Your task to perform on an android device: Go to Yahoo.com Image 0: 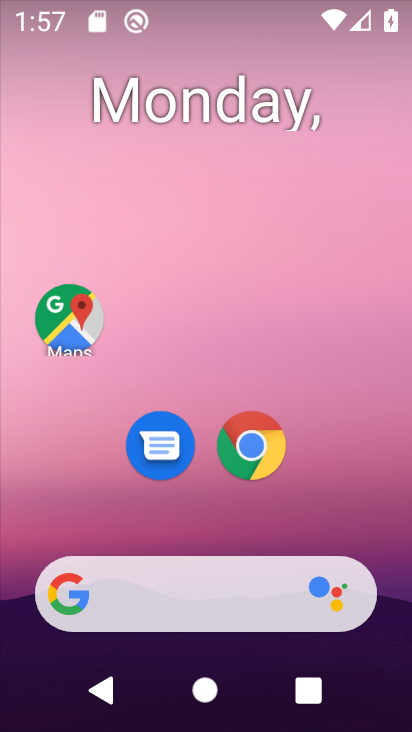
Step 0: drag from (375, 572) to (268, 33)
Your task to perform on an android device: Go to Yahoo.com Image 1: 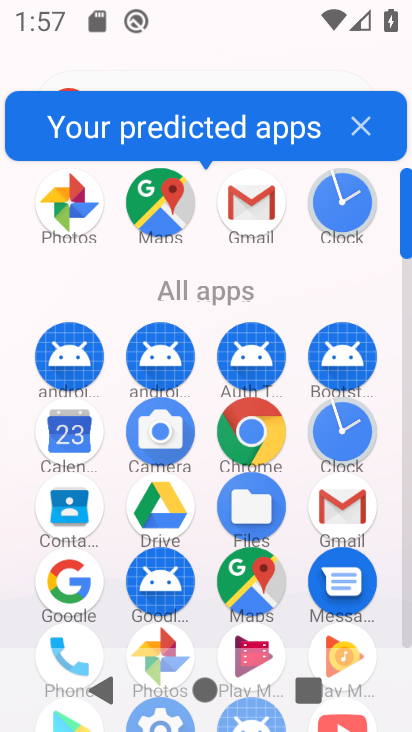
Step 1: drag from (9, 539) to (0, 205)
Your task to perform on an android device: Go to Yahoo.com Image 2: 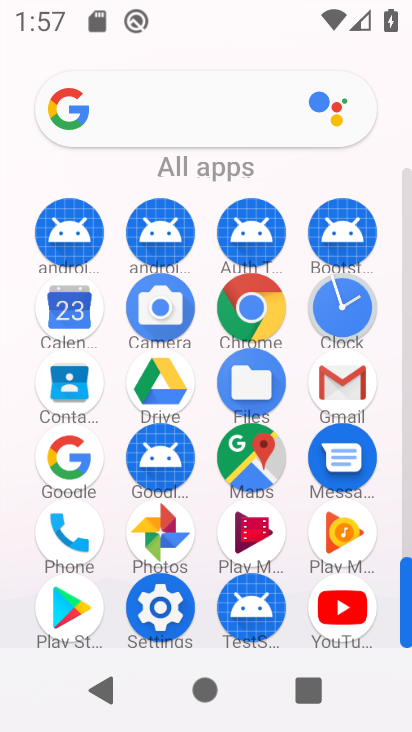
Step 2: click (247, 302)
Your task to perform on an android device: Go to Yahoo.com Image 3: 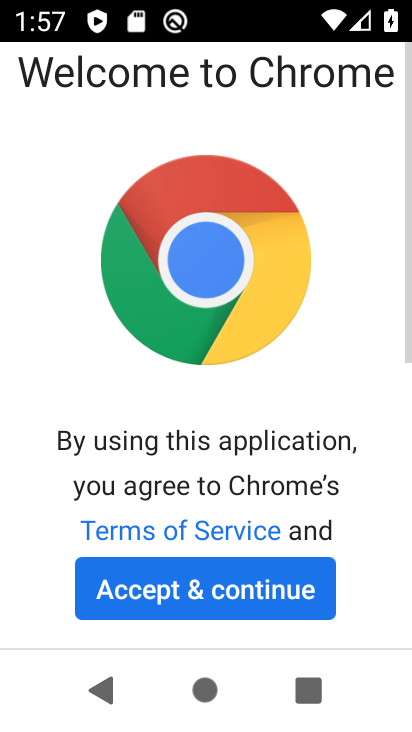
Step 3: click (246, 602)
Your task to perform on an android device: Go to Yahoo.com Image 4: 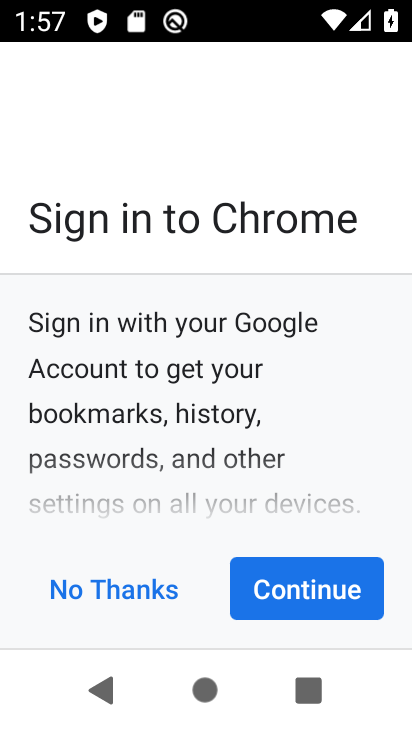
Step 4: click (278, 578)
Your task to perform on an android device: Go to Yahoo.com Image 5: 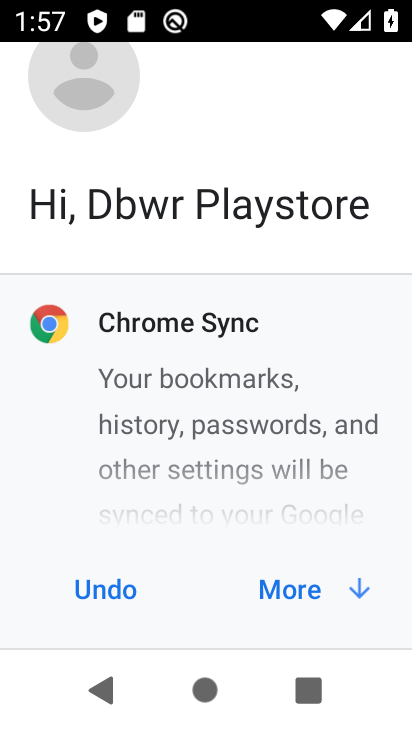
Step 5: click (277, 581)
Your task to perform on an android device: Go to Yahoo.com Image 6: 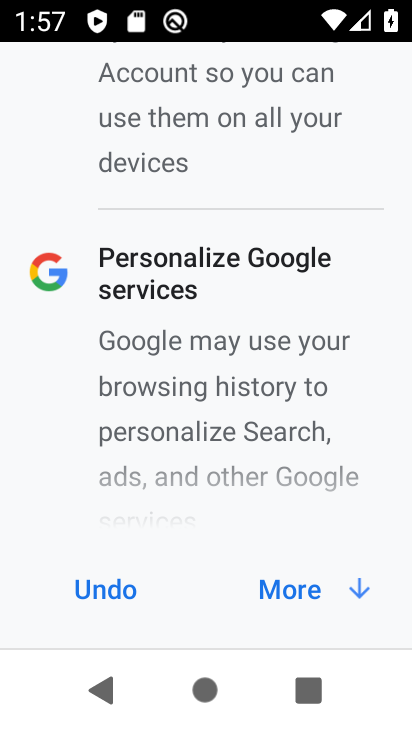
Step 6: click (301, 592)
Your task to perform on an android device: Go to Yahoo.com Image 7: 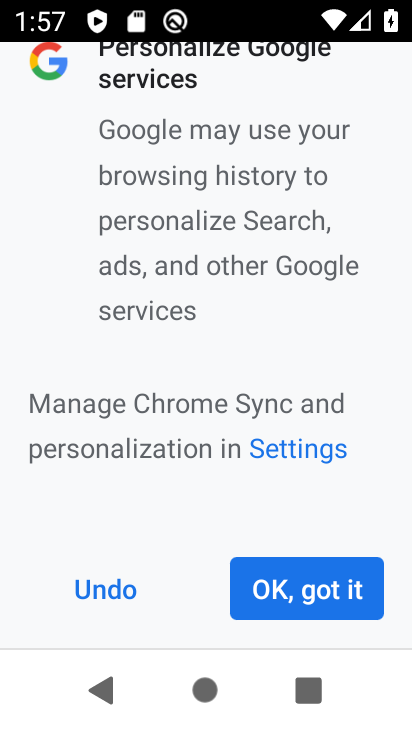
Step 7: click (300, 586)
Your task to perform on an android device: Go to Yahoo.com Image 8: 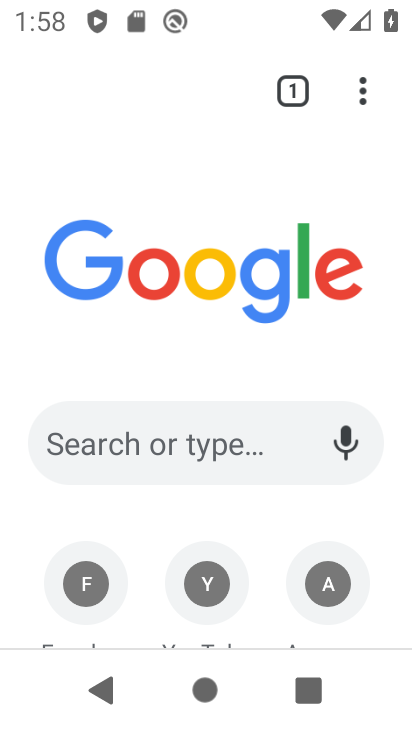
Step 8: click (188, 438)
Your task to perform on an android device: Go to Yahoo.com Image 9: 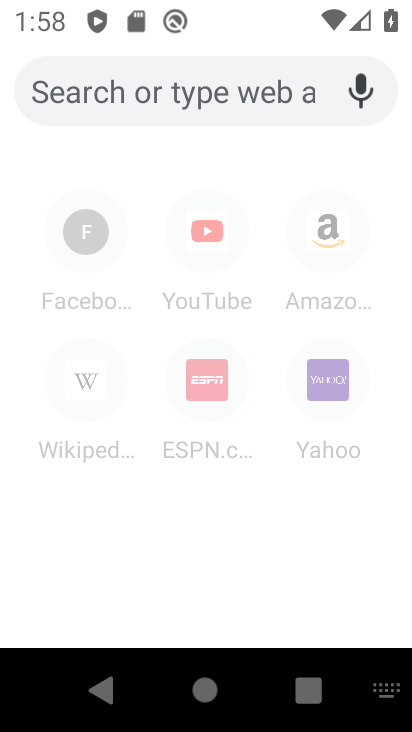
Step 9: click (323, 377)
Your task to perform on an android device: Go to Yahoo.com Image 10: 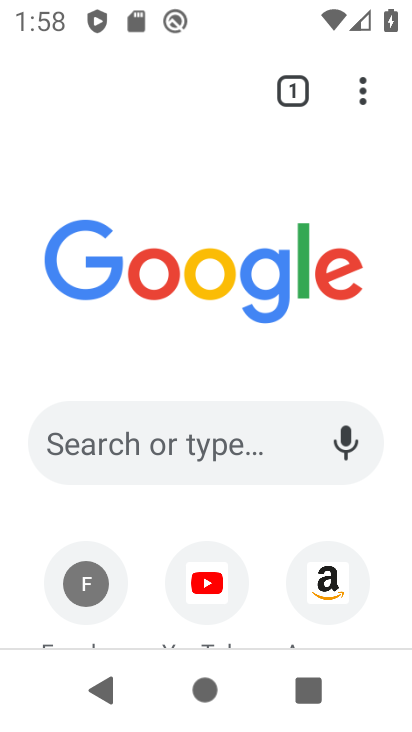
Step 10: drag from (30, 552) to (28, 199)
Your task to perform on an android device: Go to Yahoo.com Image 11: 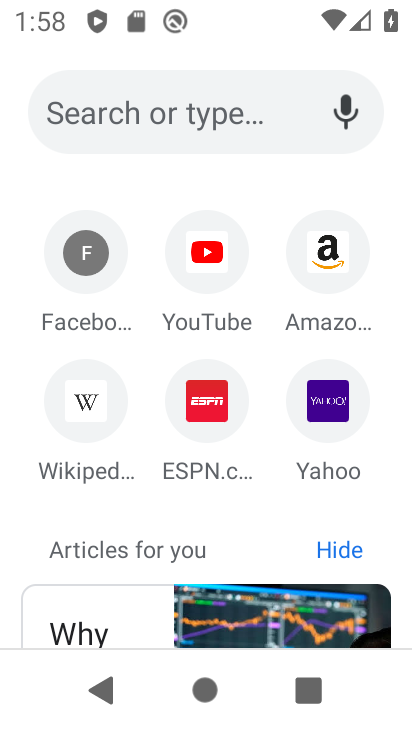
Step 11: click (324, 405)
Your task to perform on an android device: Go to Yahoo.com Image 12: 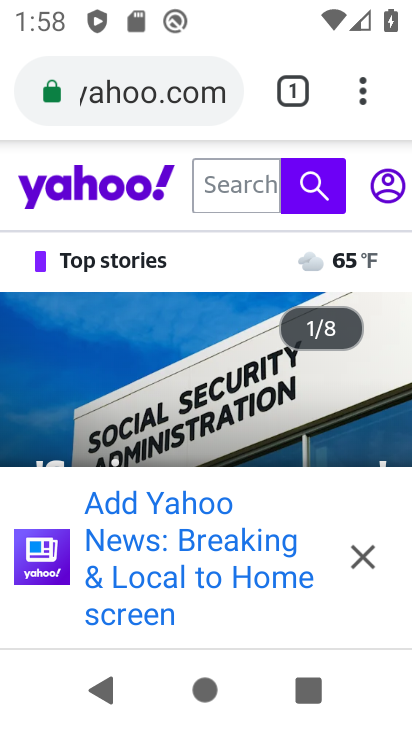
Step 12: click (360, 553)
Your task to perform on an android device: Go to Yahoo.com Image 13: 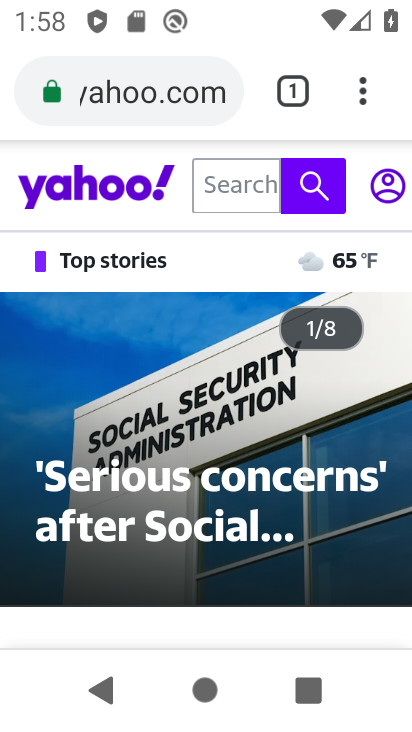
Step 13: task complete